Your task to perform on an android device: turn on showing notifications on the lock screen Image 0: 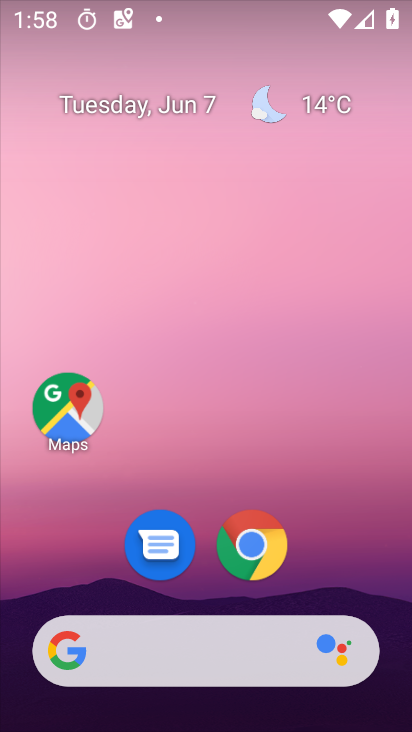
Step 0: drag from (339, 466) to (279, 12)
Your task to perform on an android device: turn on showing notifications on the lock screen Image 1: 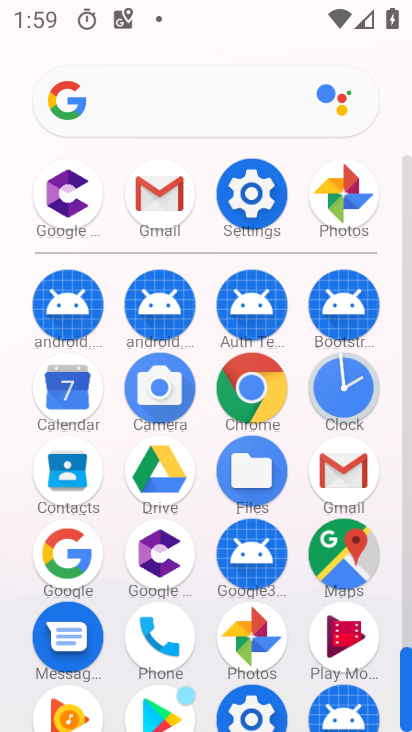
Step 1: click (245, 157)
Your task to perform on an android device: turn on showing notifications on the lock screen Image 2: 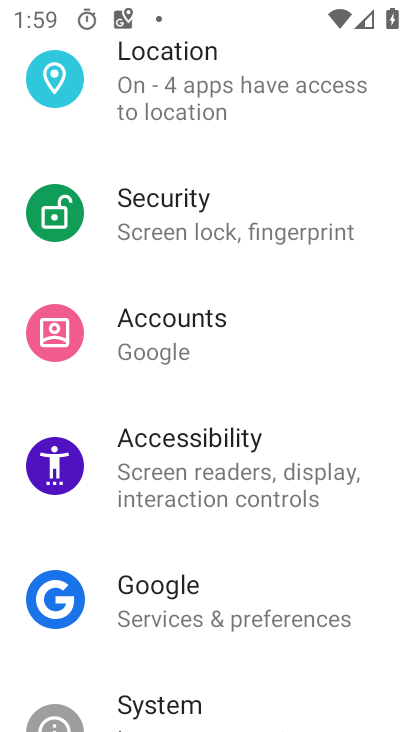
Step 2: drag from (234, 196) to (241, 712)
Your task to perform on an android device: turn on showing notifications on the lock screen Image 3: 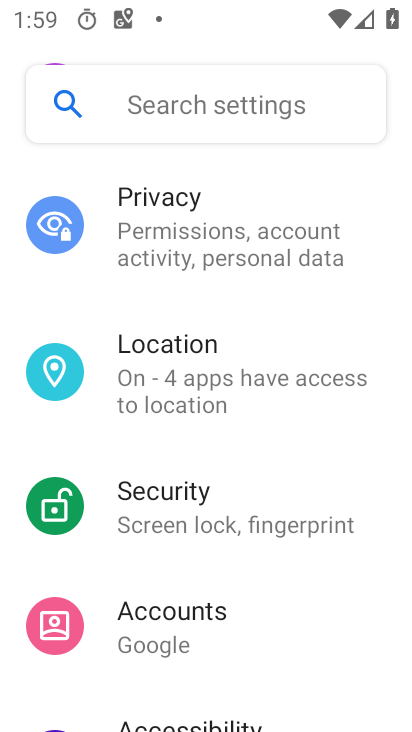
Step 3: drag from (272, 280) to (268, 698)
Your task to perform on an android device: turn on showing notifications on the lock screen Image 4: 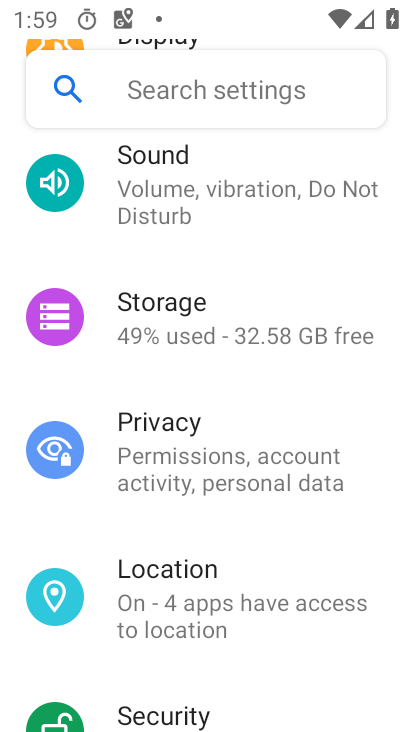
Step 4: drag from (257, 310) to (275, 609)
Your task to perform on an android device: turn on showing notifications on the lock screen Image 5: 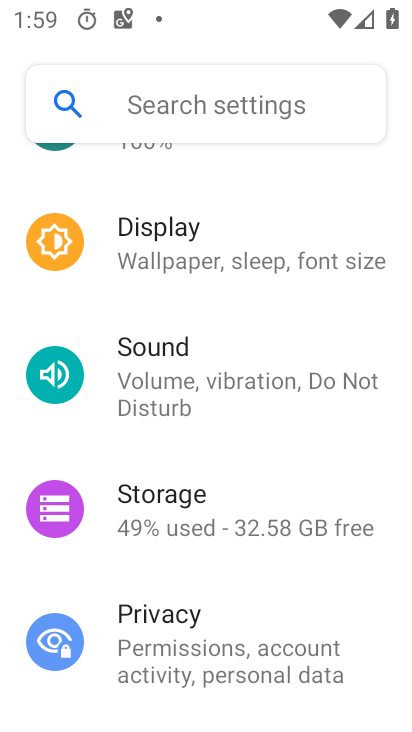
Step 5: drag from (249, 224) to (296, 683)
Your task to perform on an android device: turn on showing notifications on the lock screen Image 6: 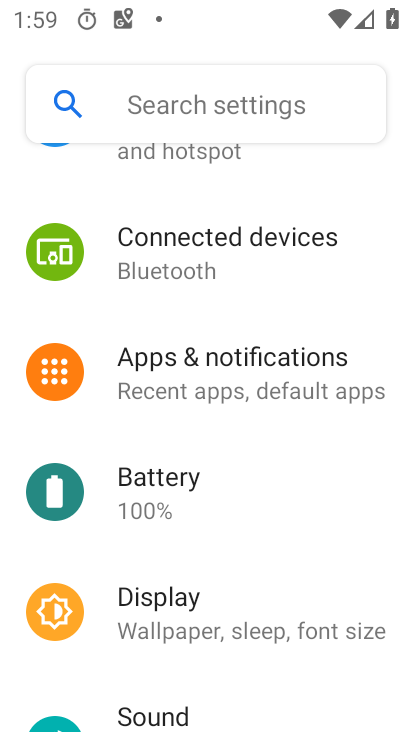
Step 6: click (279, 358)
Your task to perform on an android device: turn on showing notifications on the lock screen Image 7: 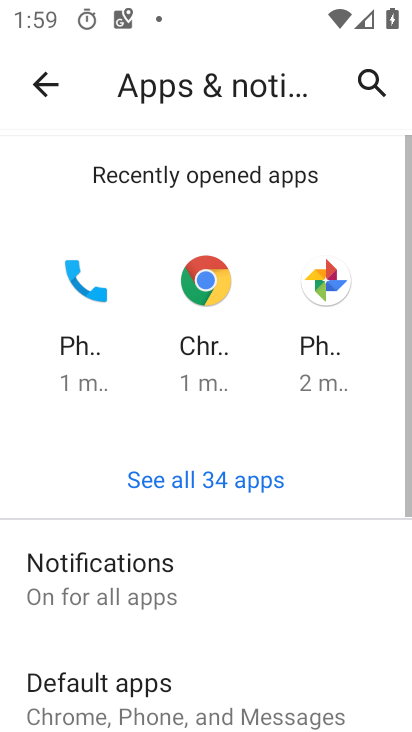
Step 7: drag from (281, 572) to (234, 64)
Your task to perform on an android device: turn on showing notifications on the lock screen Image 8: 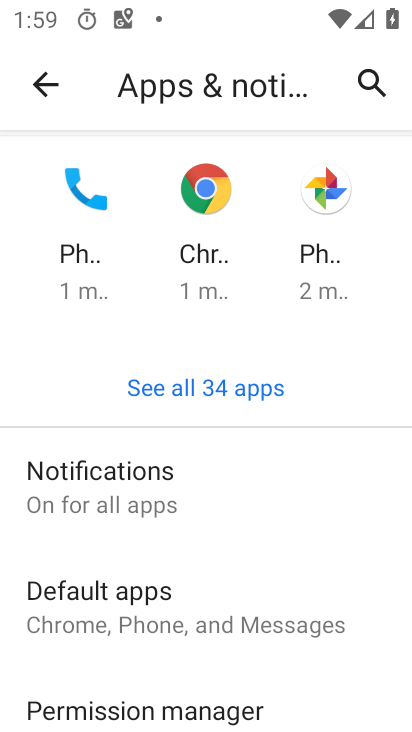
Step 8: click (231, 488)
Your task to perform on an android device: turn on showing notifications on the lock screen Image 9: 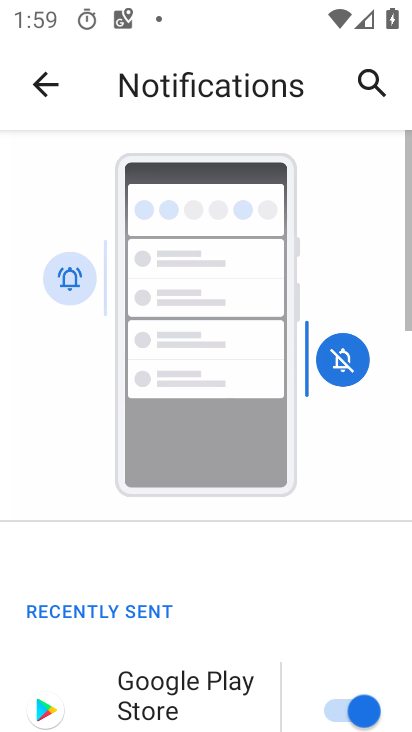
Step 9: drag from (264, 483) to (278, 87)
Your task to perform on an android device: turn on showing notifications on the lock screen Image 10: 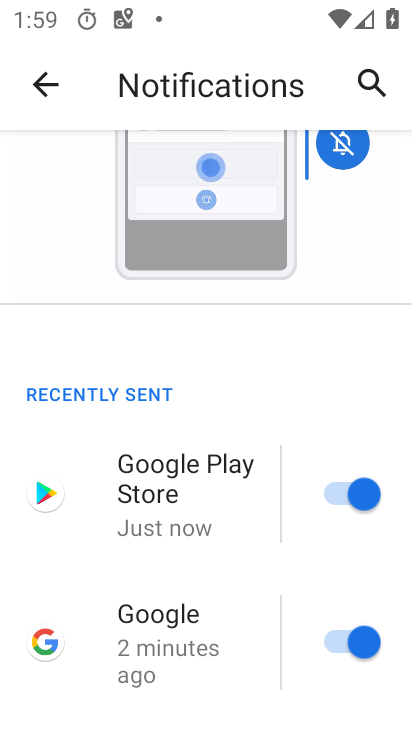
Step 10: drag from (228, 659) to (250, 169)
Your task to perform on an android device: turn on showing notifications on the lock screen Image 11: 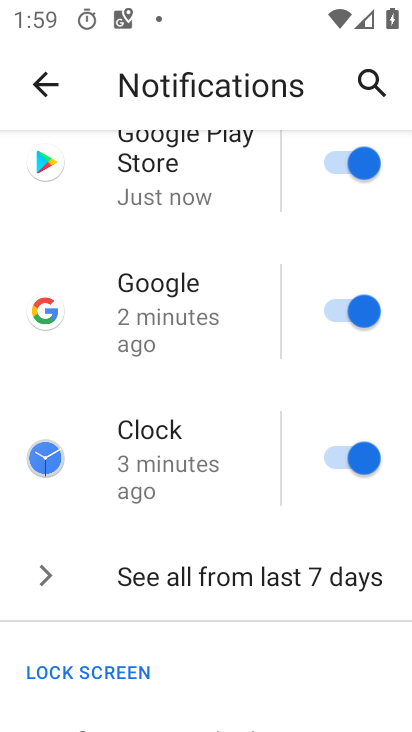
Step 11: drag from (200, 644) to (269, 145)
Your task to perform on an android device: turn on showing notifications on the lock screen Image 12: 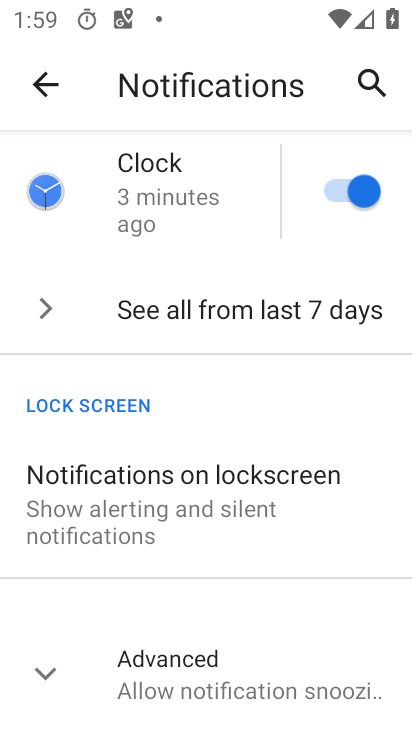
Step 12: click (227, 489)
Your task to perform on an android device: turn on showing notifications on the lock screen Image 13: 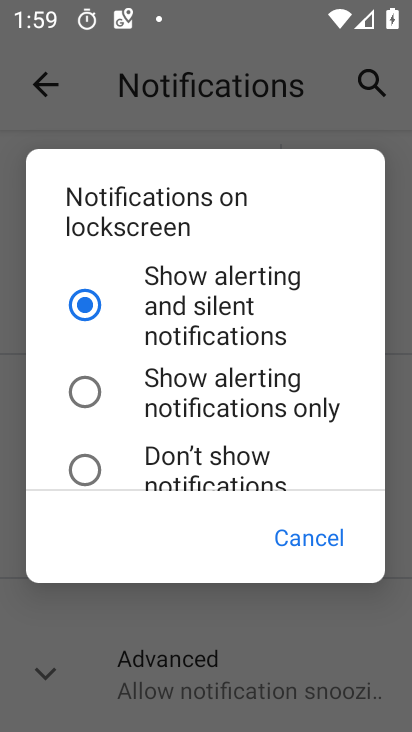
Step 13: task complete